Your task to perform on an android device: toggle location history Image 0: 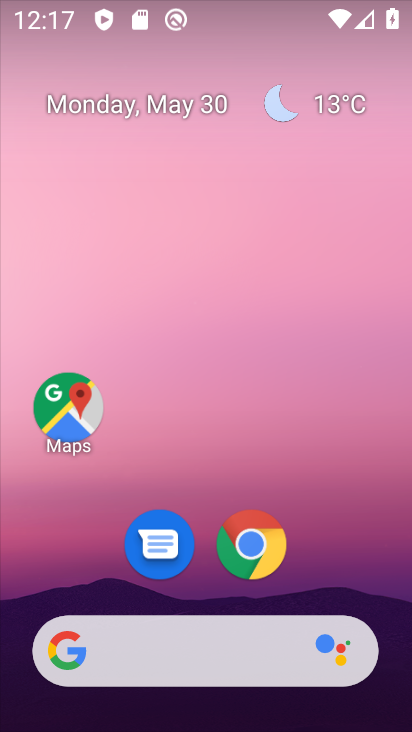
Step 0: drag from (352, 587) to (339, 121)
Your task to perform on an android device: toggle location history Image 1: 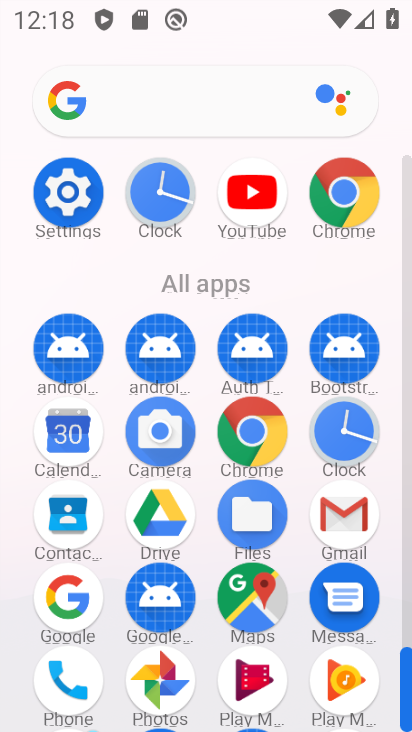
Step 1: click (56, 208)
Your task to perform on an android device: toggle location history Image 2: 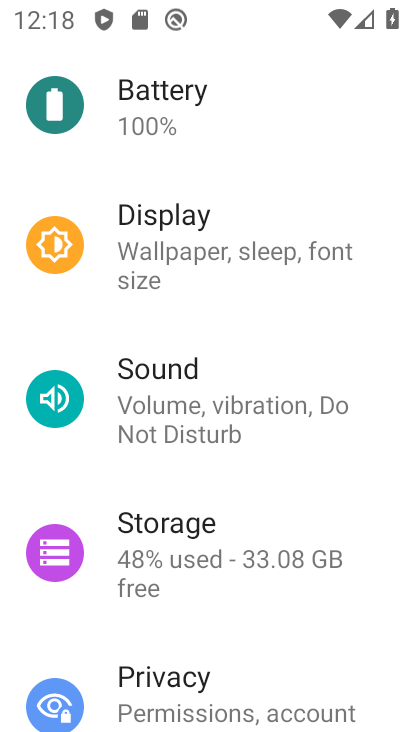
Step 2: drag from (203, 358) to (261, 95)
Your task to perform on an android device: toggle location history Image 3: 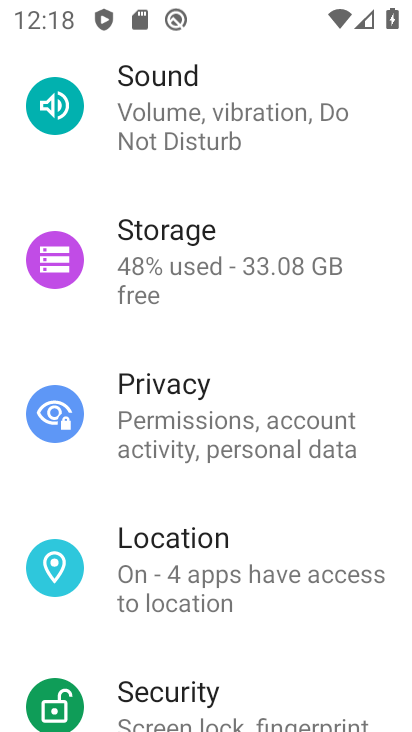
Step 3: click (181, 567)
Your task to perform on an android device: toggle location history Image 4: 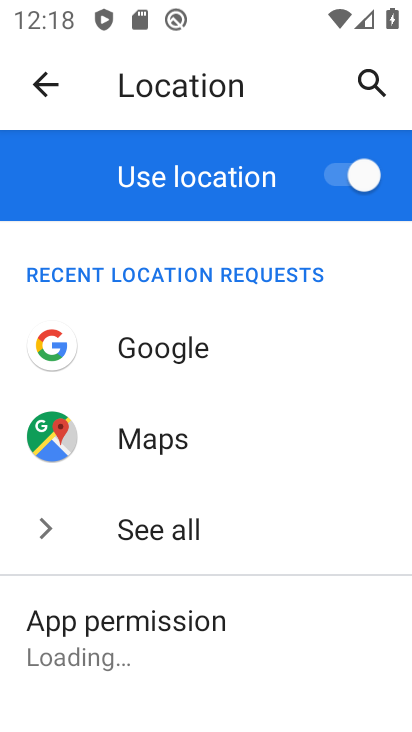
Step 4: drag from (161, 614) to (191, 180)
Your task to perform on an android device: toggle location history Image 5: 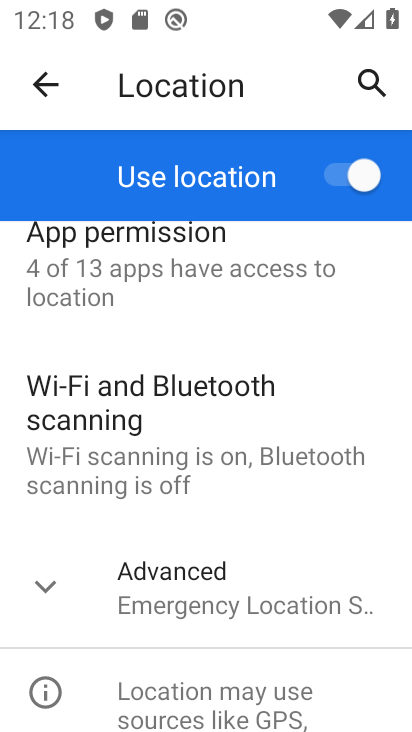
Step 5: drag from (295, 557) to (309, 232)
Your task to perform on an android device: toggle location history Image 6: 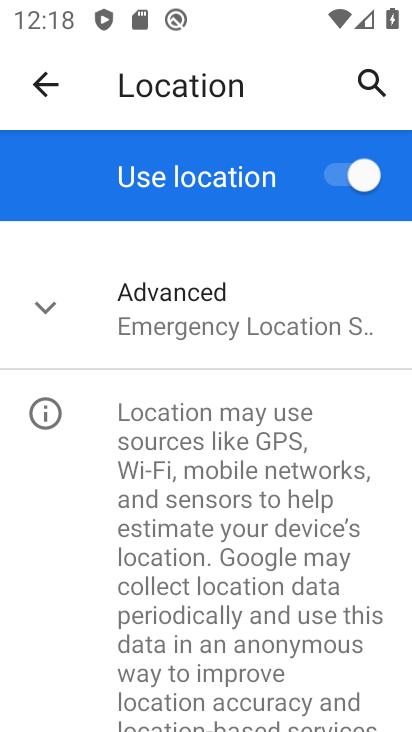
Step 6: click (313, 334)
Your task to perform on an android device: toggle location history Image 7: 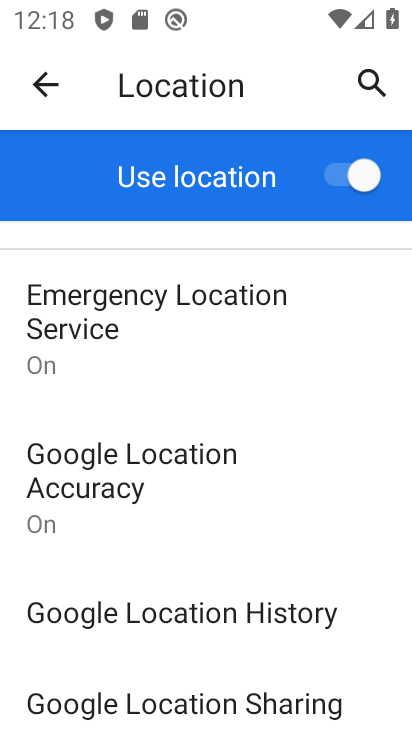
Step 7: task complete